Your task to perform on an android device: turn on location history Image 0: 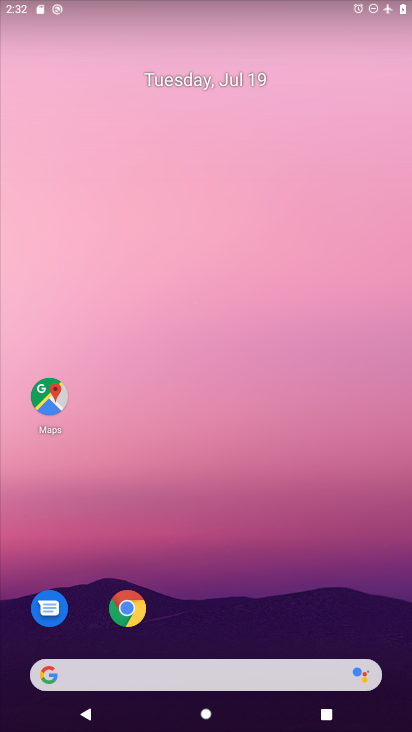
Step 0: drag from (221, 593) to (178, 236)
Your task to perform on an android device: turn on location history Image 1: 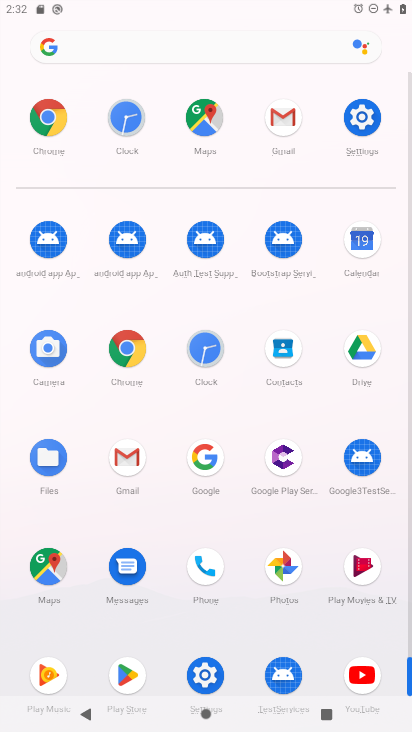
Step 1: click (202, 687)
Your task to perform on an android device: turn on location history Image 2: 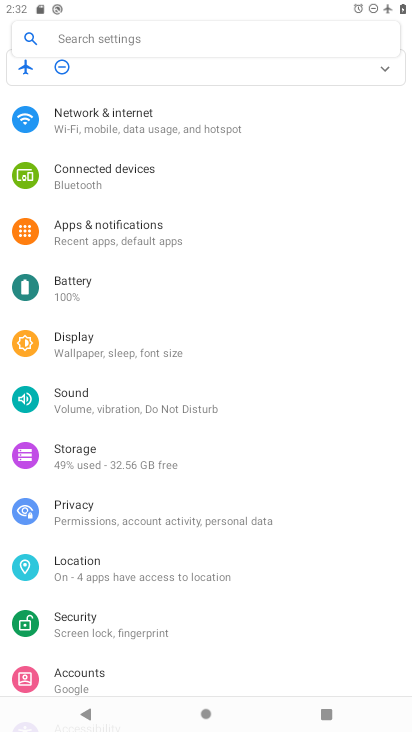
Step 2: click (83, 579)
Your task to perform on an android device: turn on location history Image 3: 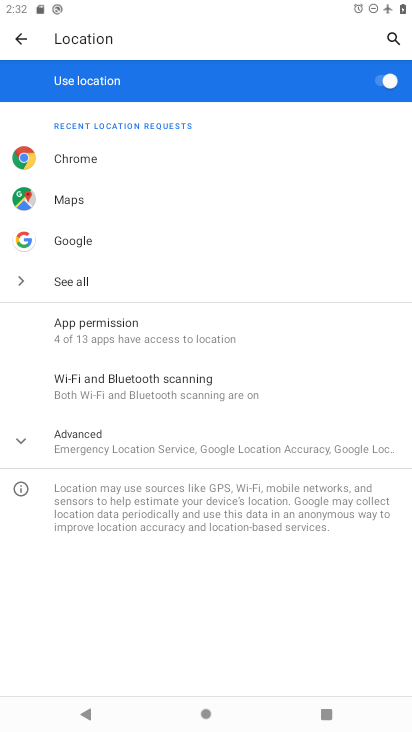
Step 3: click (131, 451)
Your task to perform on an android device: turn on location history Image 4: 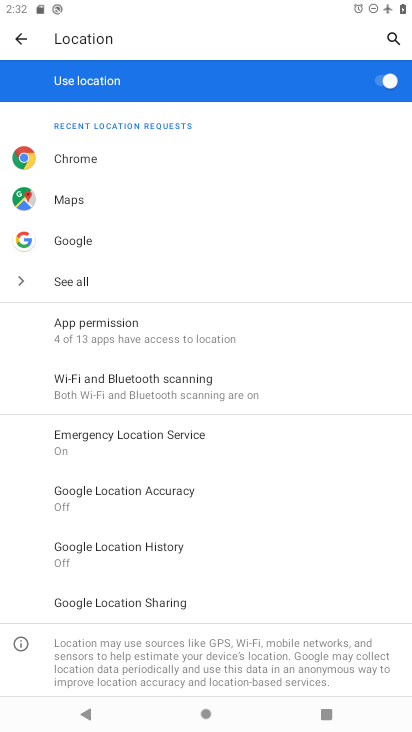
Step 4: click (151, 565)
Your task to perform on an android device: turn on location history Image 5: 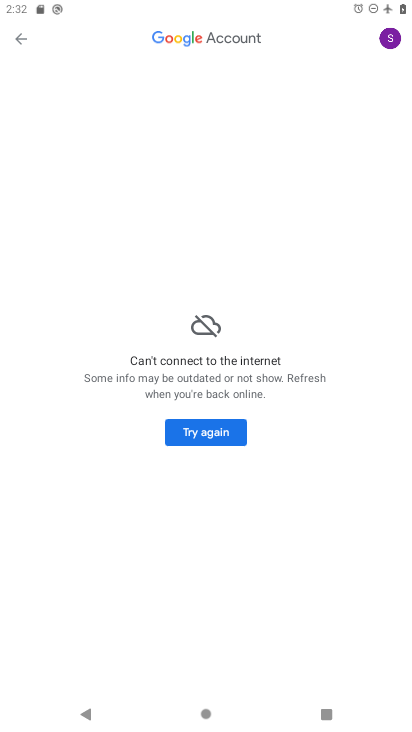
Step 5: click (239, 429)
Your task to perform on an android device: turn on location history Image 6: 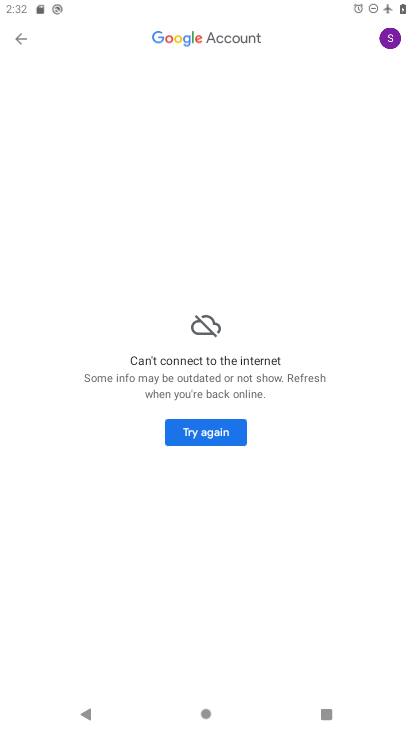
Step 6: task complete